Your task to perform on an android device: What is the news today? Image 0: 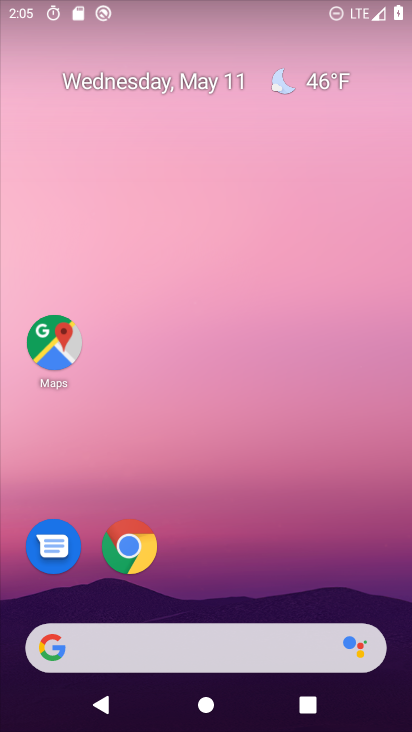
Step 0: drag from (286, 674) to (171, 190)
Your task to perform on an android device: What is the news today? Image 1: 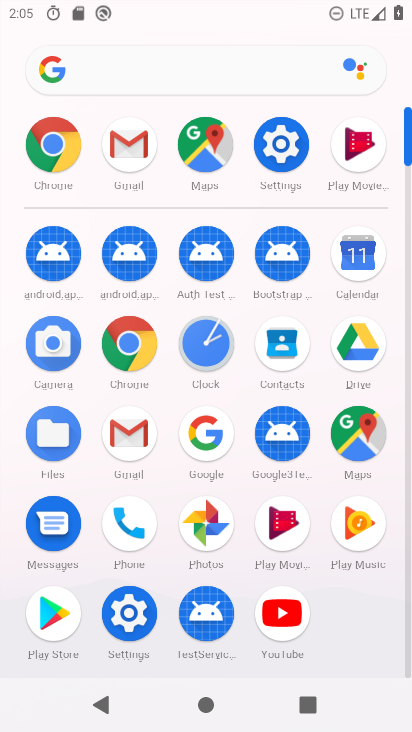
Step 1: click (133, 81)
Your task to perform on an android device: What is the news today? Image 2: 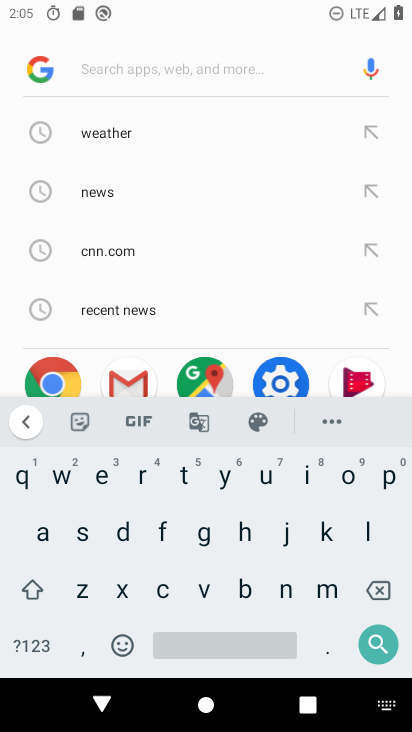
Step 2: click (100, 191)
Your task to perform on an android device: What is the news today? Image 3: 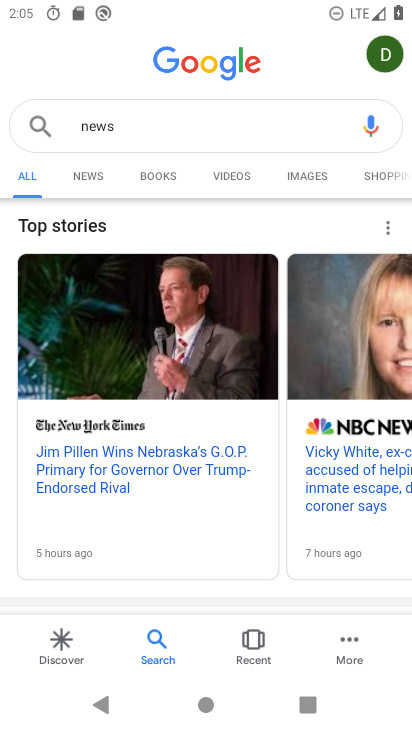
Step 3: task complete